Your task to perform on an android device: change keyboard looks Image 0: 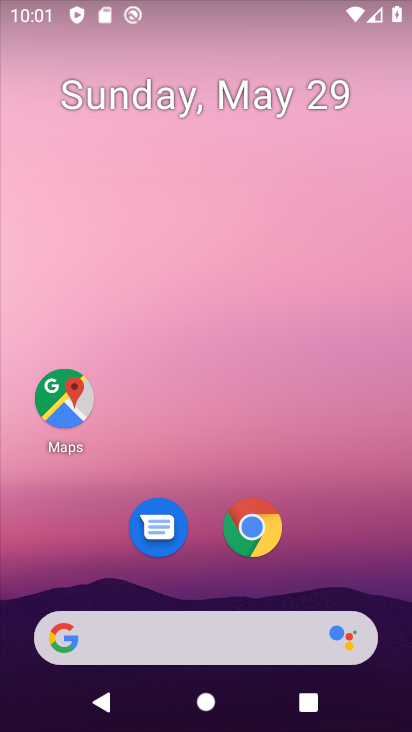
Step 0: drag from (353, 478) to (233, 46)
Your task to perform on an android device: change keyboard looks Image 1: 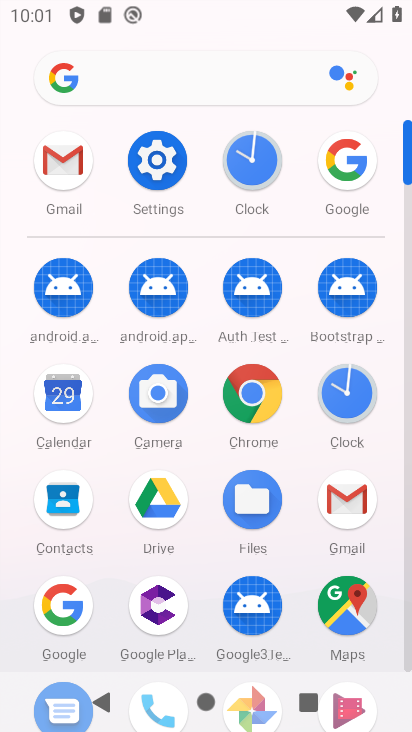
Step 1: click (144, 162)
Your task to perform on an android device: change keyboard looks Image 2: 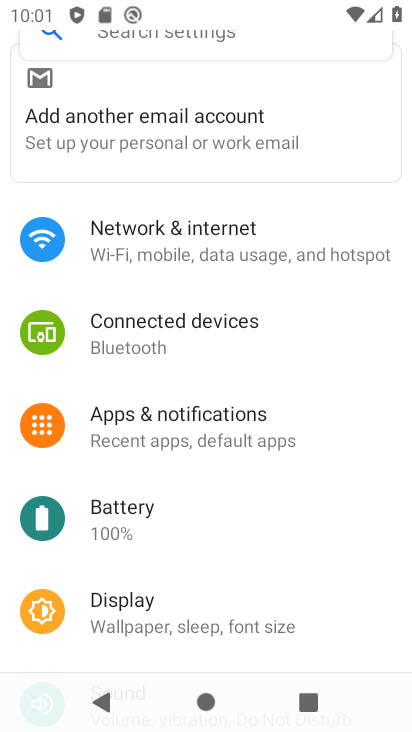
Step 2: drag from (317, 544) to (316, 83)
Your task to perform on an android device: change keyboard looks Image 3: 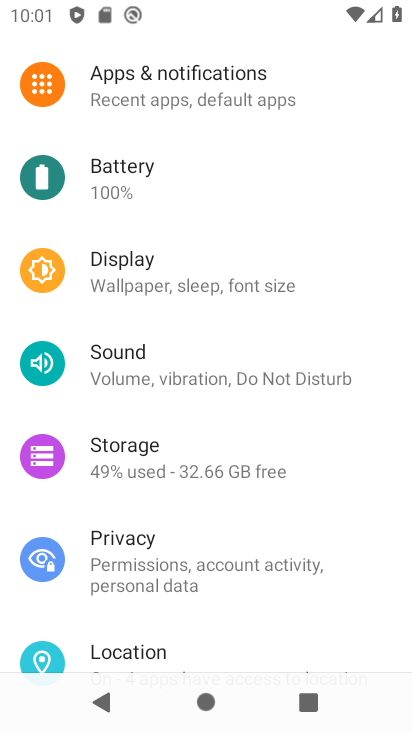
Step 3: drag from (253, 553) to (373, 118)
Your task to perform on an android device: change keyboard looks Image 4: 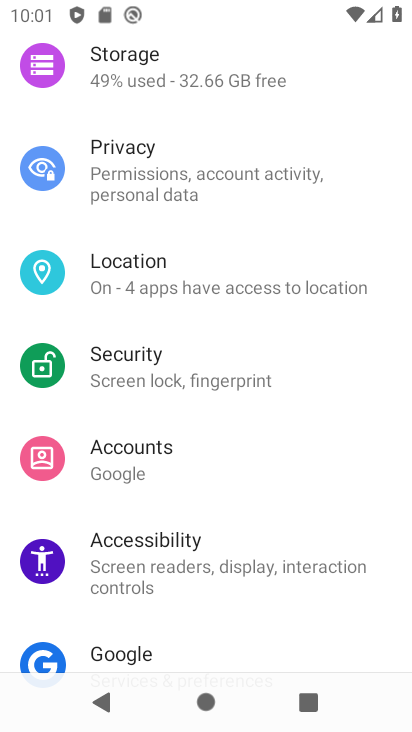
Step 4: drag from (293, 420) to (326, 121)
Your task to perform on an android device: change keyboard looks Image 5: 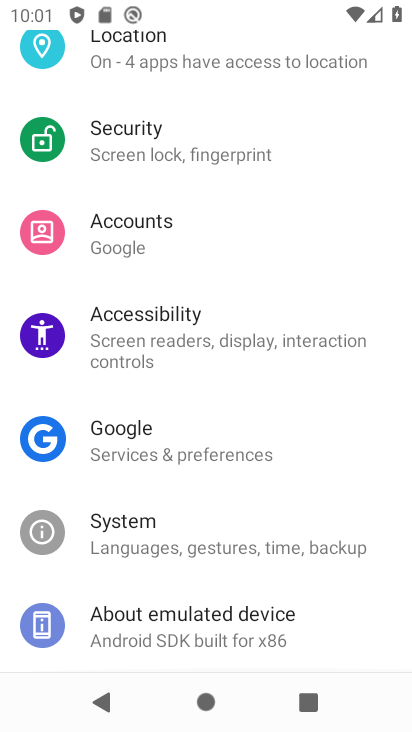
Step 5: click (341, 64)
Your task to perform on an android device: change keyboard looks Image 6: 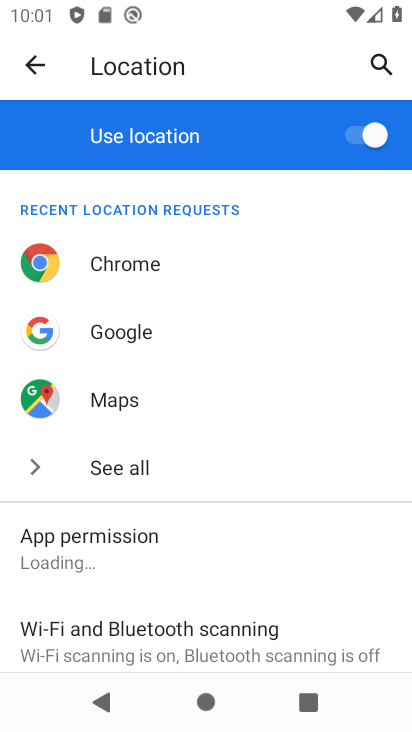
Step 6: click (46, 69)
Your task to perform on an android device: change keyboard looks Image 7: 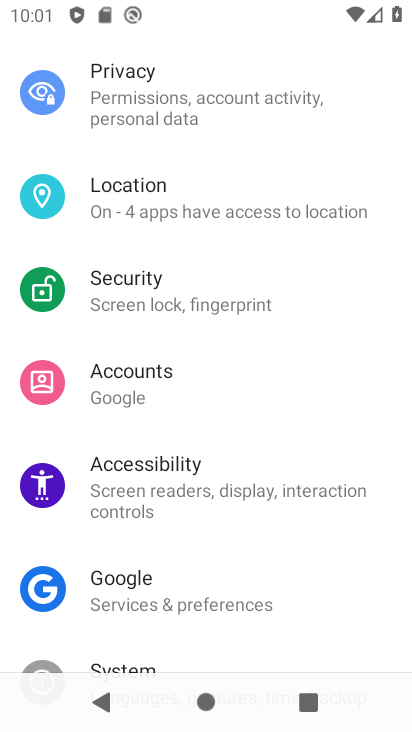
Step 7: drag from (188, 547) to (229, 264)
Your task to perform on an android device: change keyboard looks Image 8: 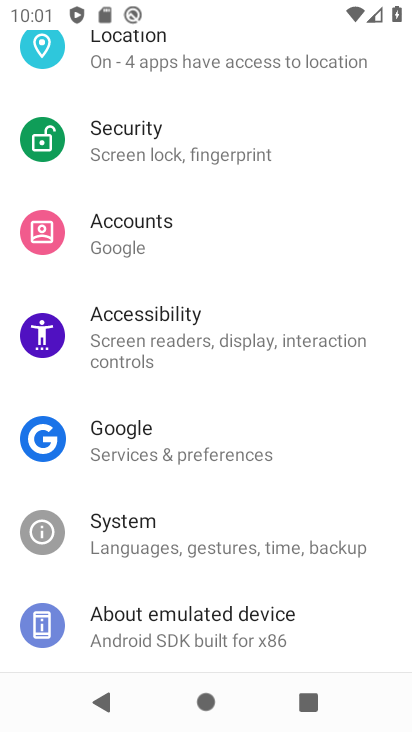
Step 8: click (191, 531)
Your task to perform on an android device: change keyboard looks Image 9: 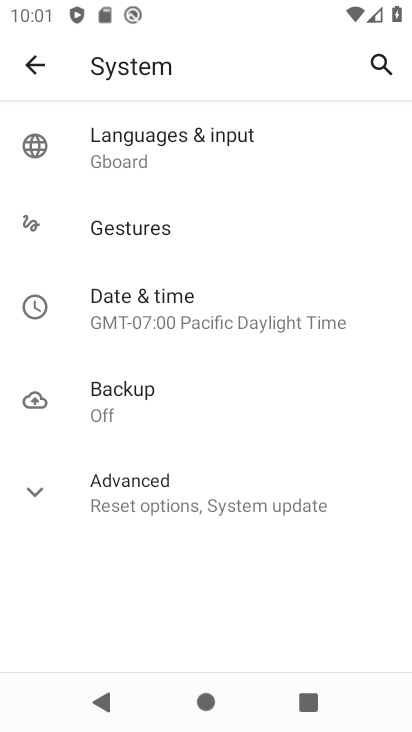
Step 9: click (250, 148)
Your task to perform on an android device: change keyboard looks Image 10: 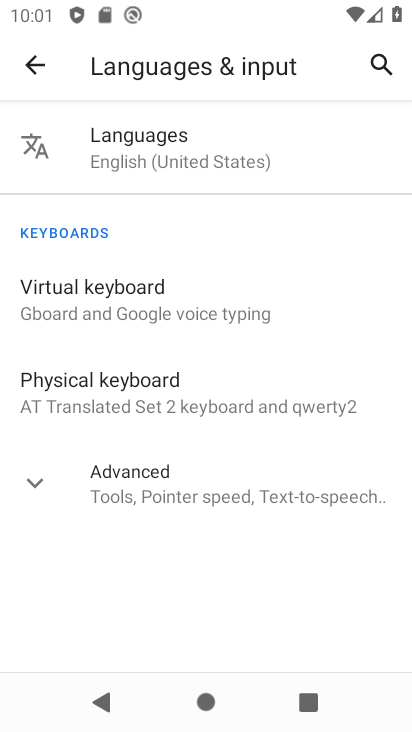
Step 10: click (176, 285)
Your task to perform on an android device: change keyboard looks Image 11: 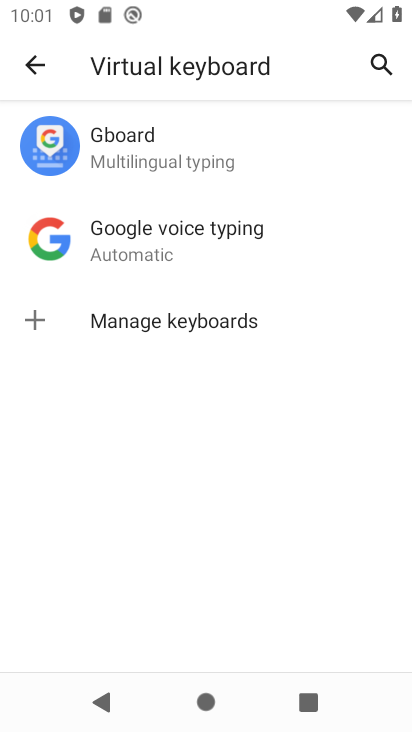
Step 11: click (183, 175)
Your task to perform on an android device: change keyboard looks Image 12: 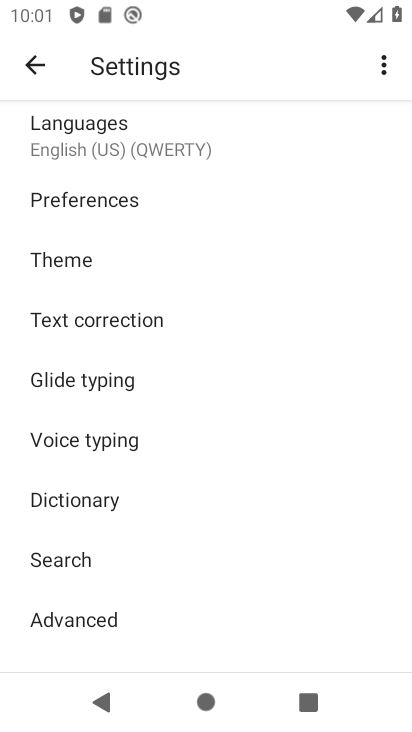
Step 12: click (90, 260)
Your task to perform on an android device: change keyboard looks Image 13: 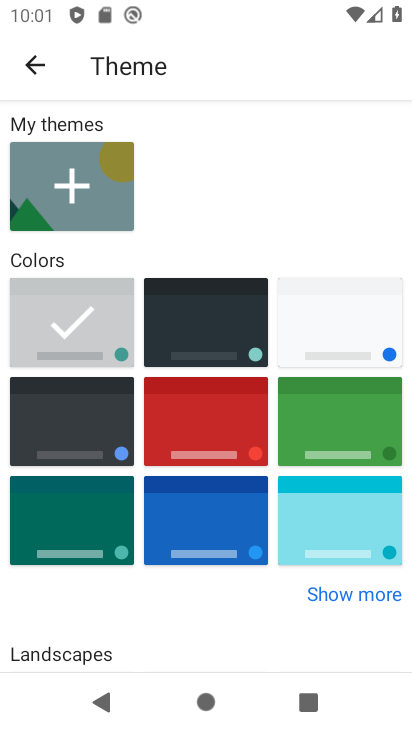
Step 13: click (360, 326)
Your task to perform on an android device: change keyboard looks Image 14: 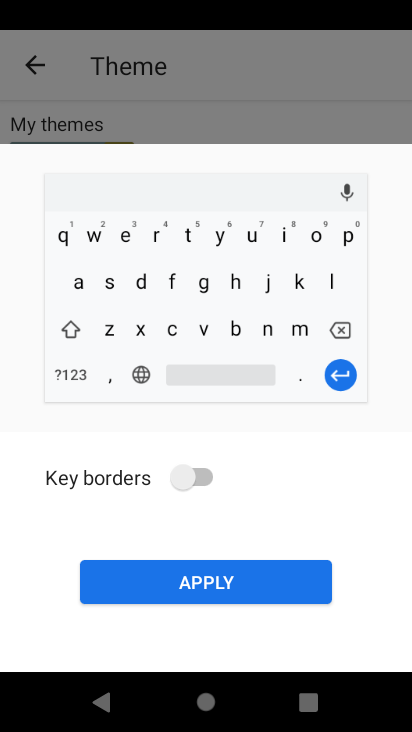
Step 14: click (266, 568)
Your task to perform on an android device: change keyboard looks Image 15: 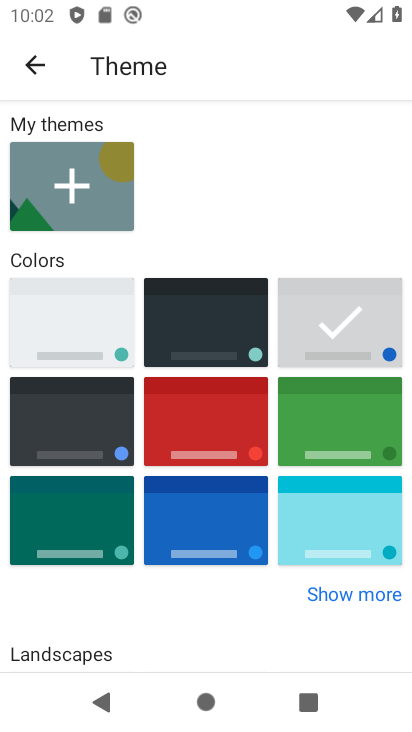
Step 15: task complete